Your task to perform on an android device: check storage Image 0: 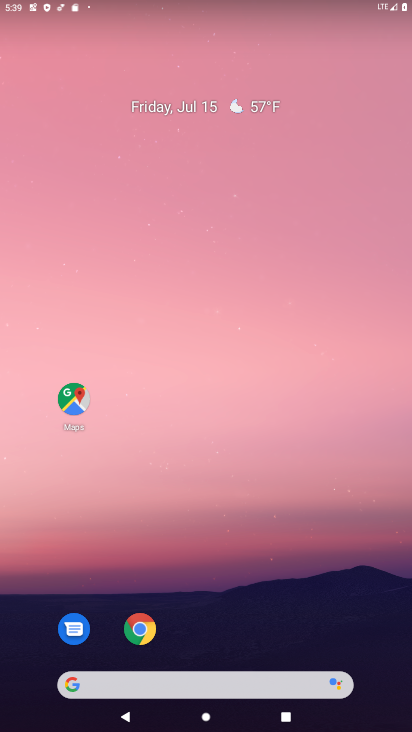
Step 0: drag from (292, 603) to (394, 17)
Your task to perform on an android device: check storage Image 1: 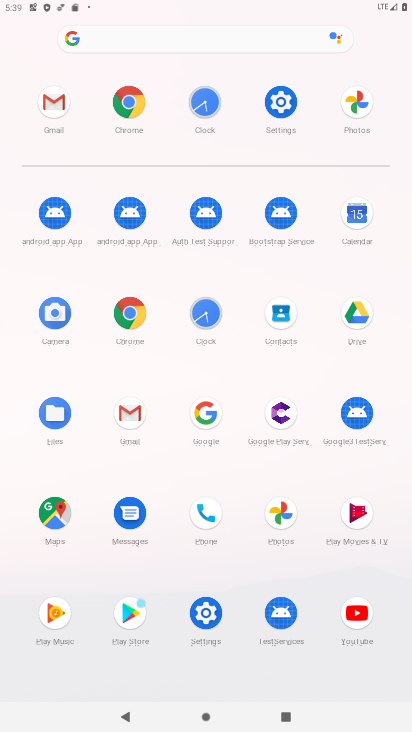
Step 1: click (283, 108)
Your task to perform on an android device: check storage Image 2: 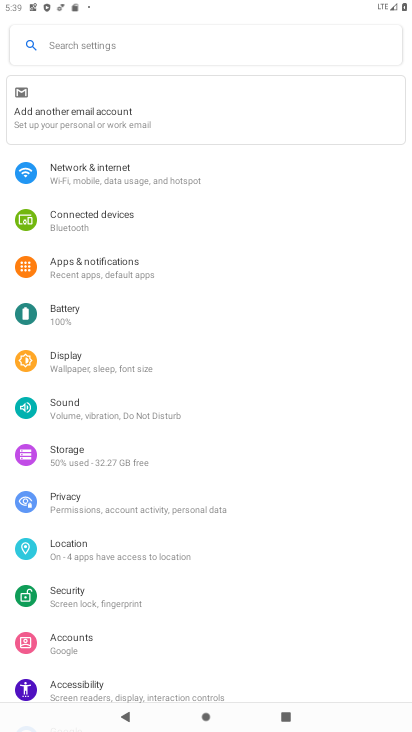
Step 2: click (69, 447)
Your task to perform on an android device: check storage Image 3: 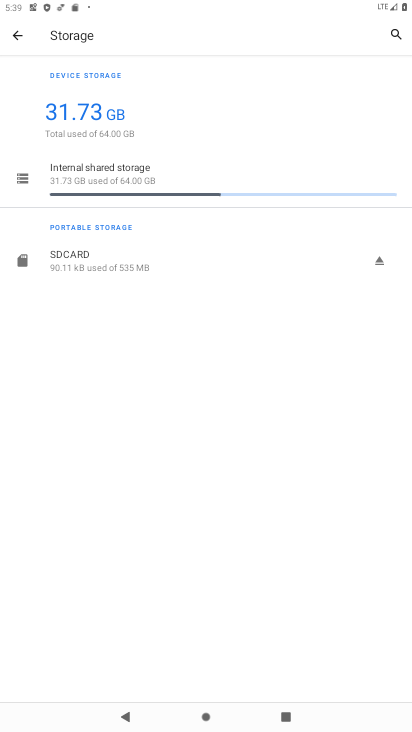
Step 3: task complete